Your task to perform on an android device: change your default location settings in chrome Image 0: 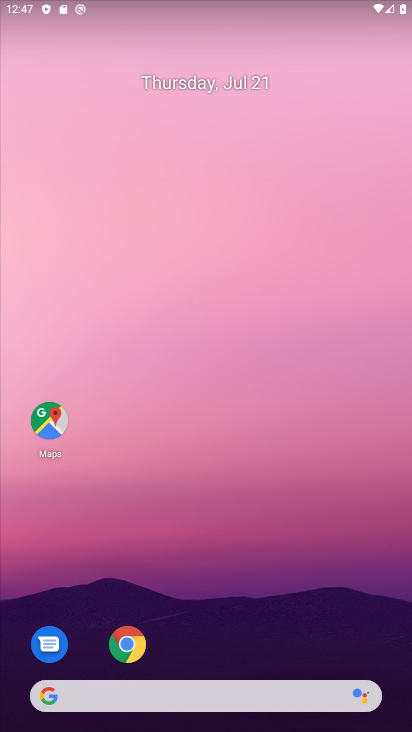
Step 0: drag from (218, 661) to (157, 58)
Your task to perform on an android device: change your default location settings in chrome Image 1: 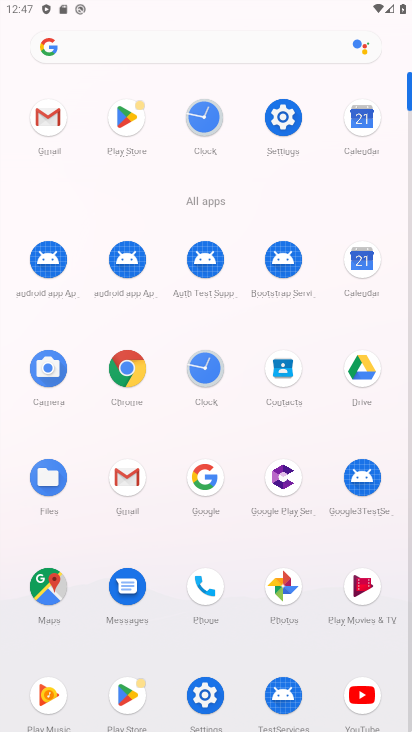
Step 1: click (124, 370)
Your task to perform on an android device: change your default location settings in chrome Image 2: 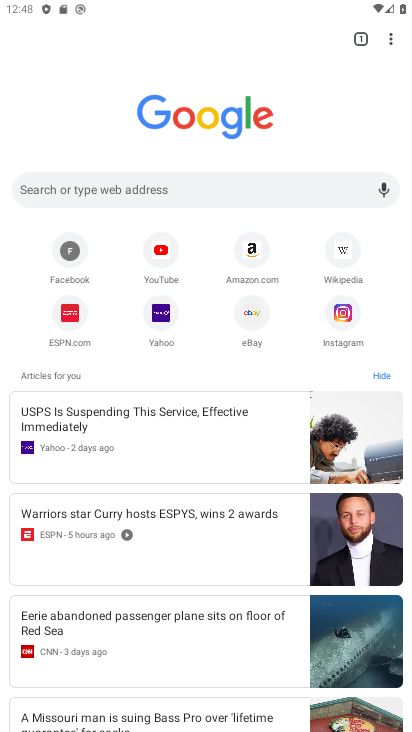
Step 2: drag from (391, 38) to (240, 325)
Your task to perform on an android device: change your default location settings in chrome Image 3: 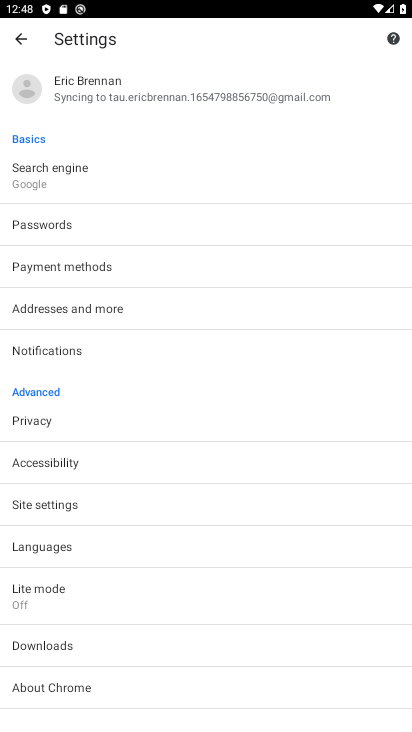
Step 3: click (46, 490)
Your task to perform on an android device: change your default location settings in chrome Image 4: 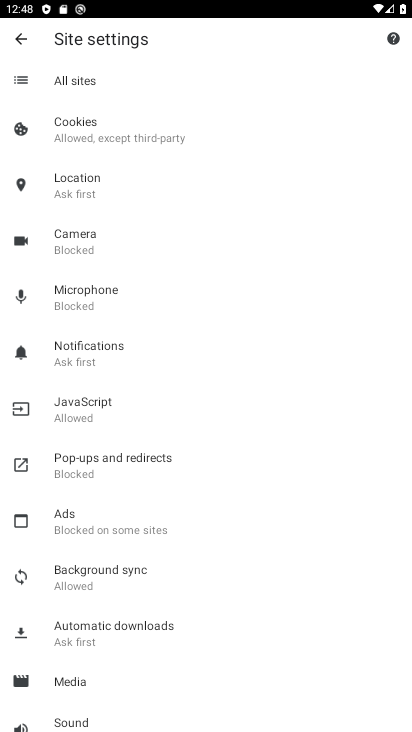
Step 4: click (68, 200)
Your task to perform on an android device: change your default location settings in chrome Image 5: 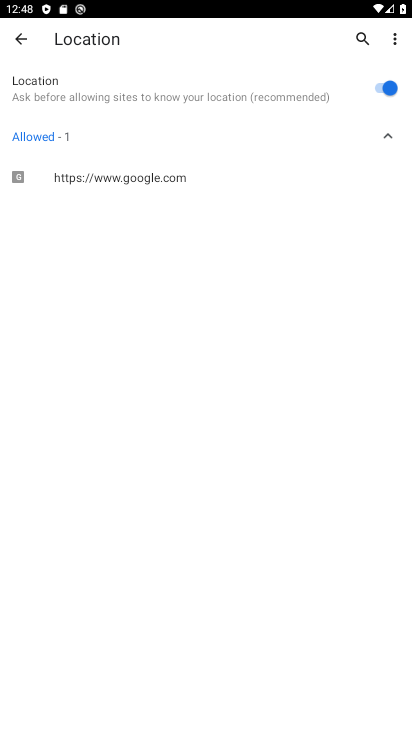
Step 5: click (378, 87)
Your task to perform on an android device: change your default location settings in chrome Image 6: 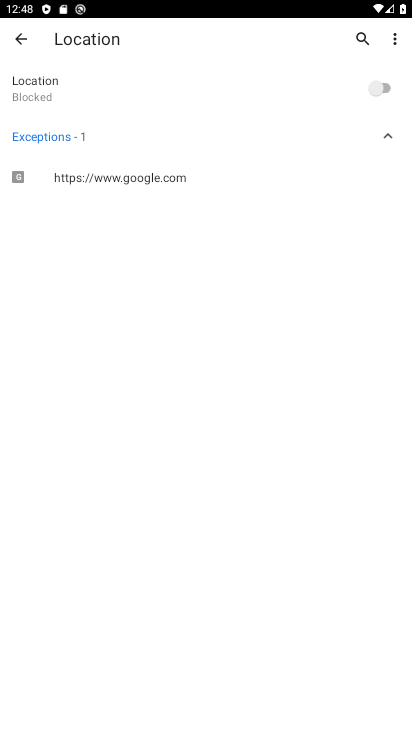
Step 6: task complete